Your task to perform on an android device: visit the assistant section in the google photos Image 0: 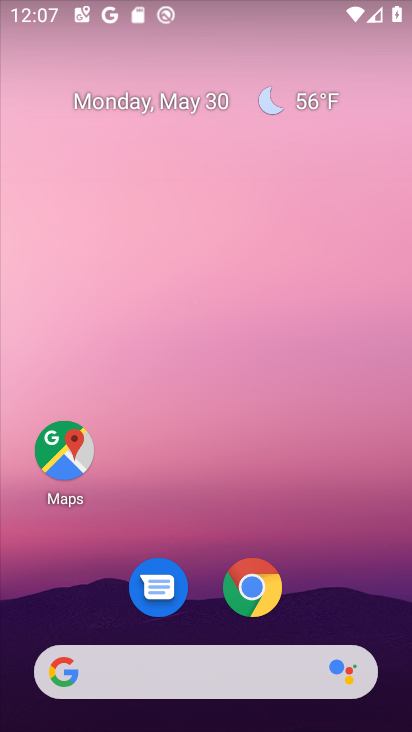
Step 0: drag from (349, 610) to (313, 308)
Your task to perform on an android device: visit the assistant section in the google photos Image 1: 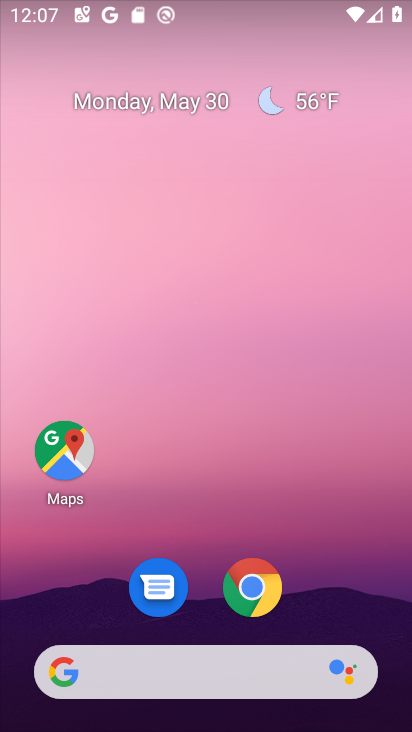
Step 1: drag from (327, 619) to (304, 176)
Your task to perform on an android device: visit the assistant section in the google photos Image 2: 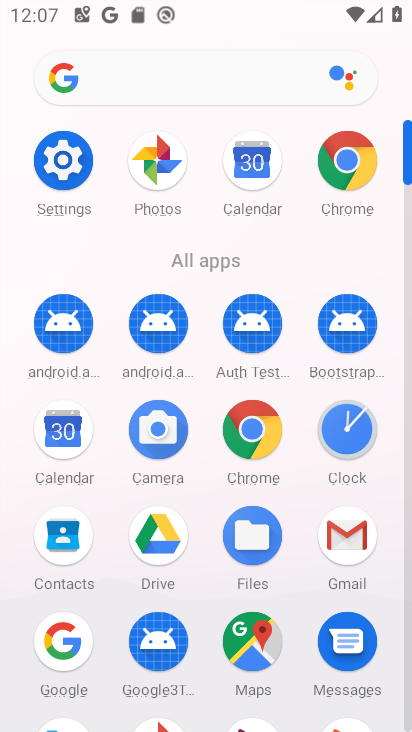
Step 2: click (152, 167)
Your task to perform on an android device: visit the assistant section in the google photos Image 3: 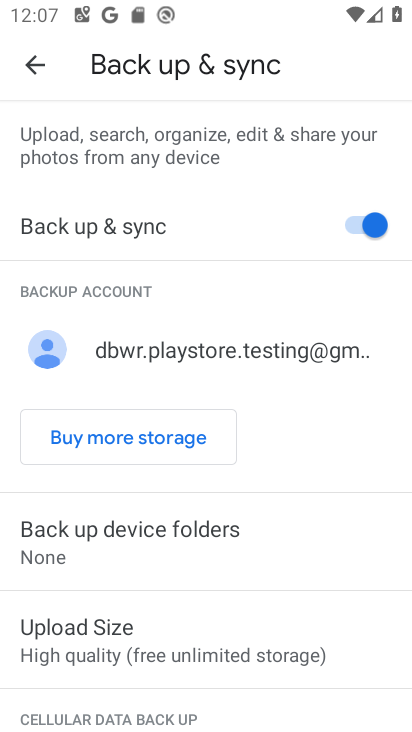
Step 3: click (33, 72)
Your task to perform on an android device: visit the assistant section in the google photos Image 4: 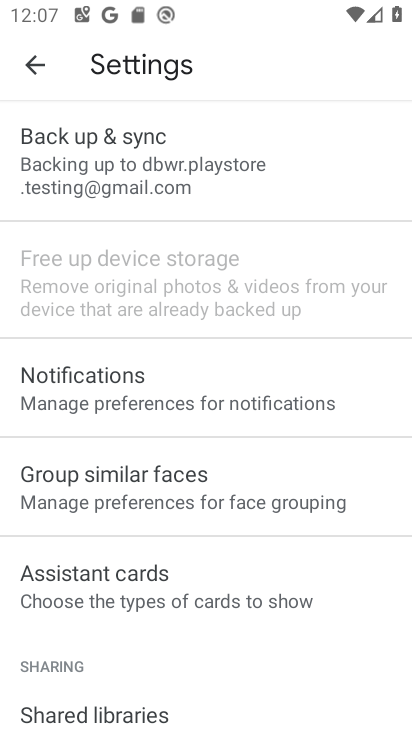
Step 4: click (30, 63)
Your task to perform on an android device: visit the assistant section in the google photos Image 5: 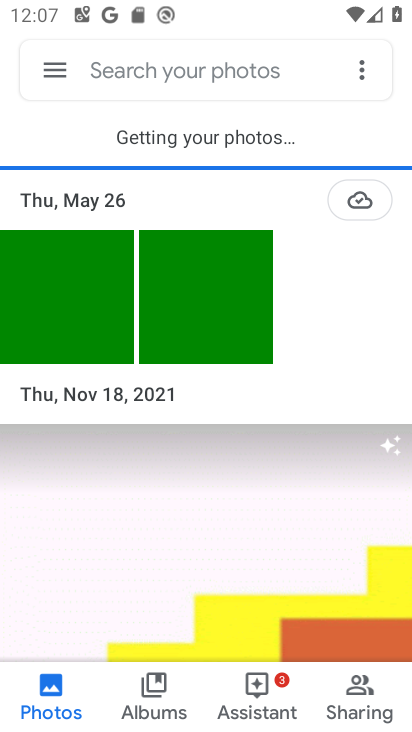
Step 5: click (270, 713)
Your task to perform on an android device: visit the assistant section in the google photos Image 6: 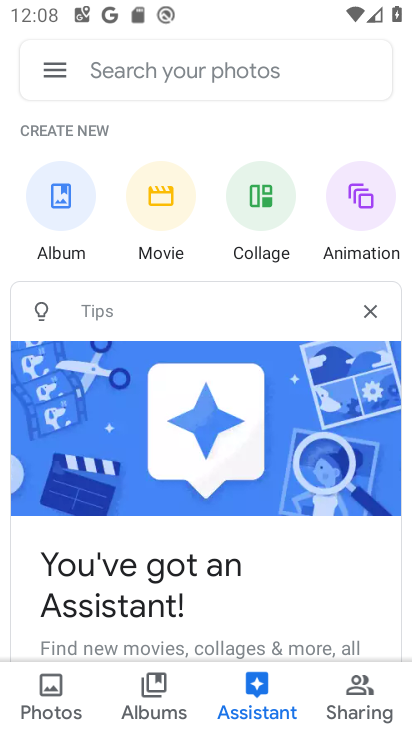
Step 6: task complete